Your task to perform on an android device: turn on sleep mode Image 0: 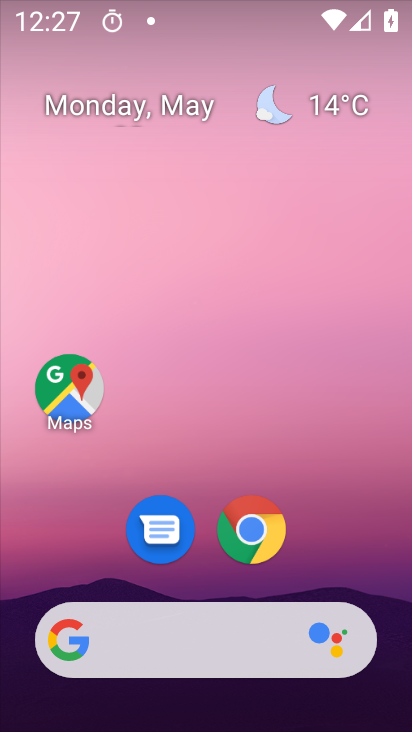
Step 0: drag from (385, 579) to (384, 176)
Your task to perform on an android device: turn on sleep mode Image 1: 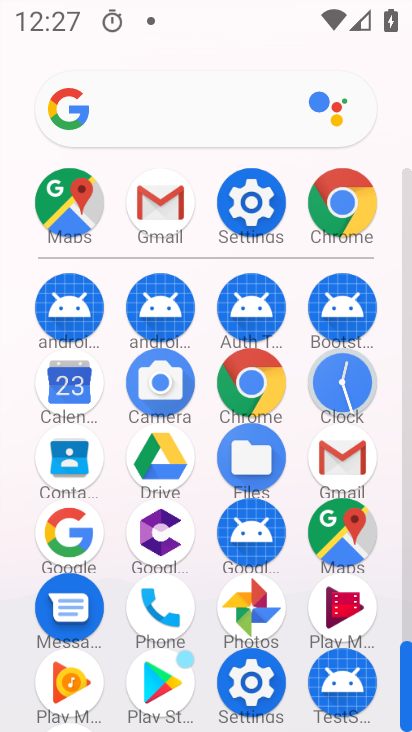
Step 1: click (278, 219)
Your task to perform on an android device: turn on sleep mode Image 2: 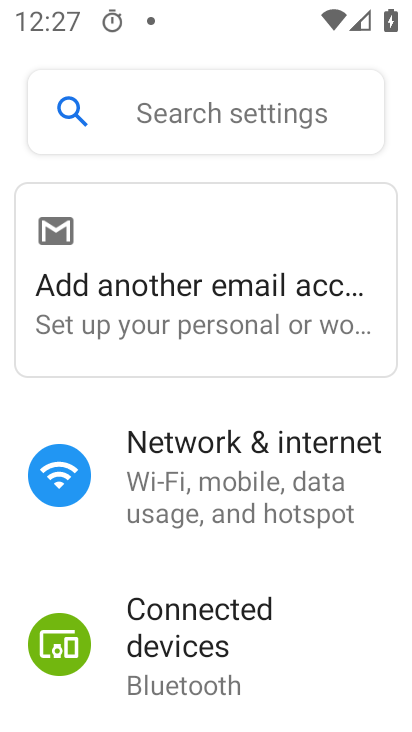
Step 2: drag from (329, 681) to (315, 596)
Your task to perform on an android device: turn on sleep mode Image 3: 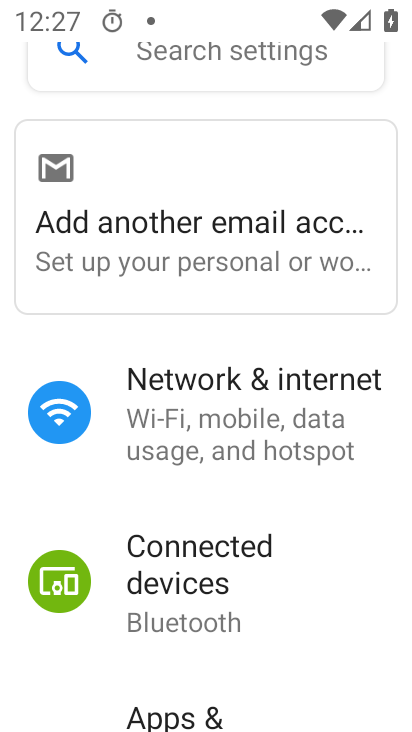
Step 3: drag from (359, 677) to (361, 584)
Your task to perform on an android device: turn on sleep mode Image 4: 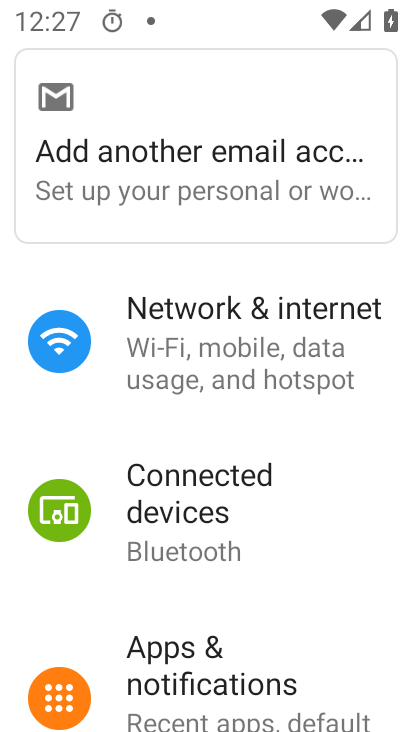
Step 4: drag from (355, 665) to (351, 568)
Your task to perform on an android device: turn on sleep mode Image 5: 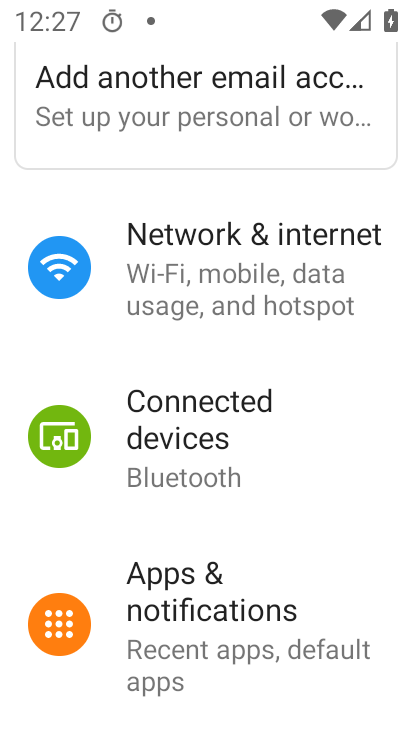
Step 5: drag from (363, 675) to (362, 568)
Your task to perform on an android device: turn on sleep mode Image 6: 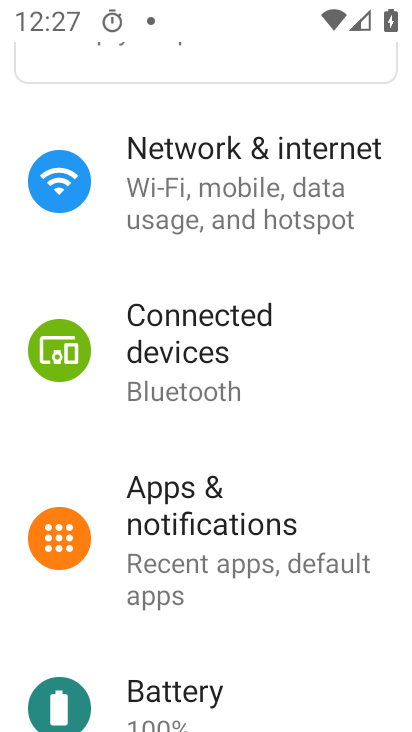
Step 6: drag from (362, 662) to (373, 572)
Your task to perform on an android device: turn on sleep mode Image 7: 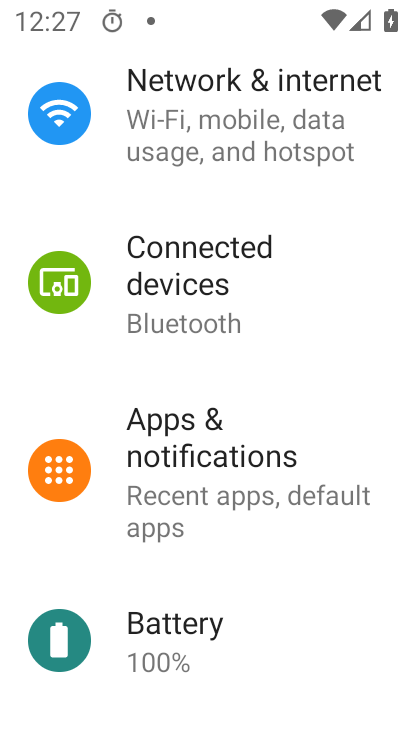
Step 7: drag from (363, 637) to (369, 563)
Your task to perform on an android device: turn on sleep mode Image 8: 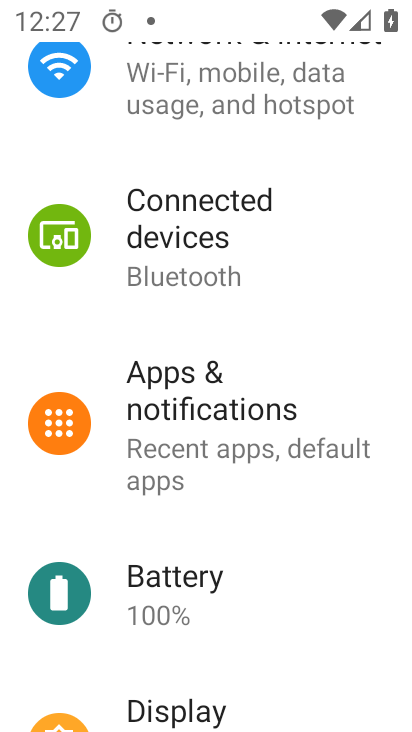
Step 8: drag from (362, 621) to (367, 514)
Your task to perform on an android device: turn on sleep mode Image 9: 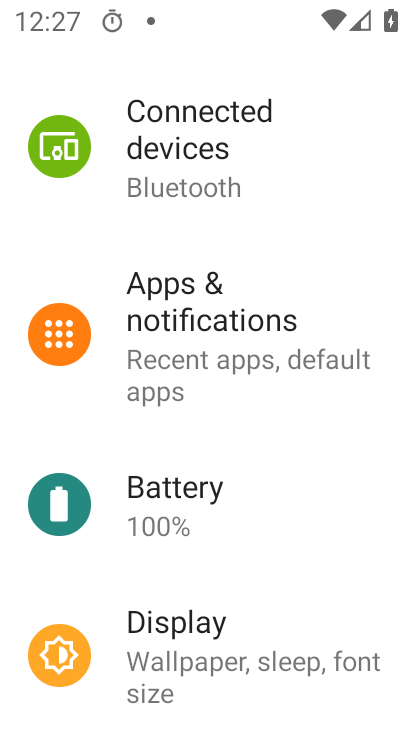
Step 9: drag from (365, 537) to (375, 407)
Your task to perform on an android device: turn on sleep mode Image 10: 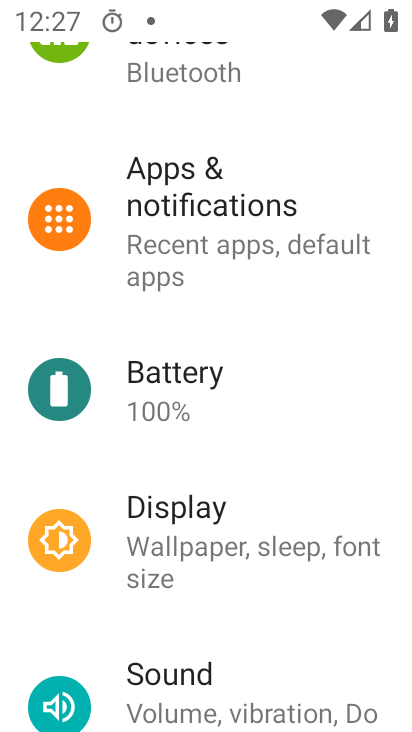
Step 10: drag from (356, 518) to (356, 410)
Your task to perform on an android device: turn on sleep mode Image 11: 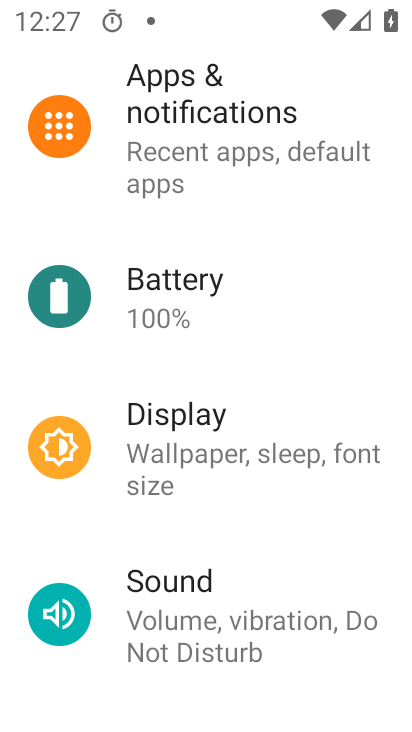
Step 11: click (336, 474)
Your task to perform on an android device: turn on sleep mode Image 12: 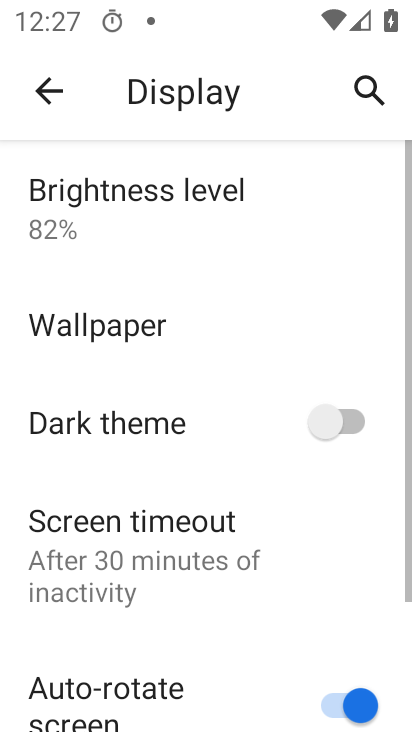
Step 12: drag from (287, 586) to (289, 494)
Your task to perform on an android device: turn on sleep mode Image 13: 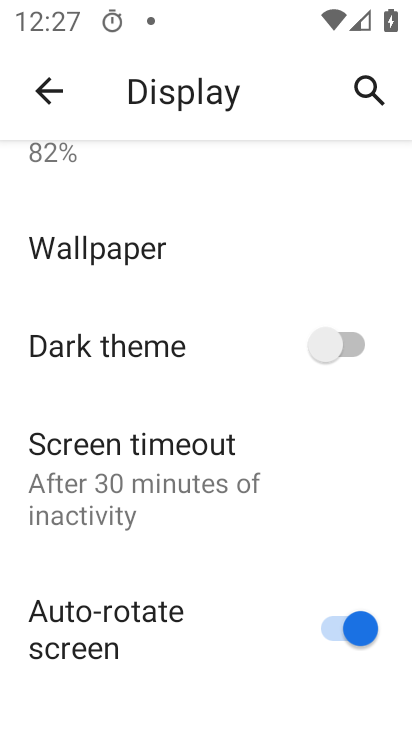
Step 13: drag from (299, 593) to (291, 499)
Your task to perform on an android device: turn on sleep mode Image 14: 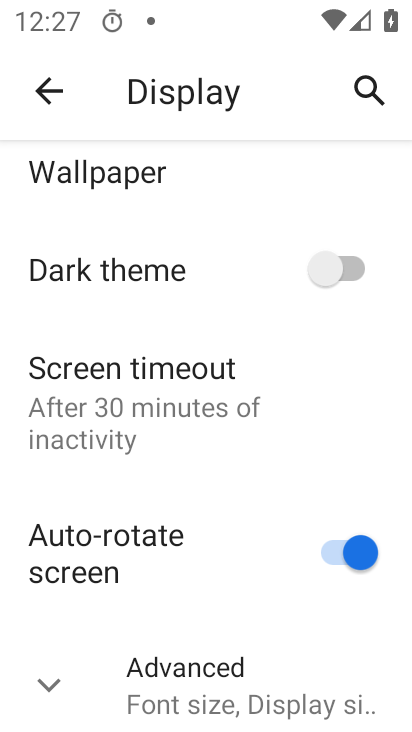
Step 14: click (215, 692)
Your task to perform on an android device: turn on sleep mode Image 15: 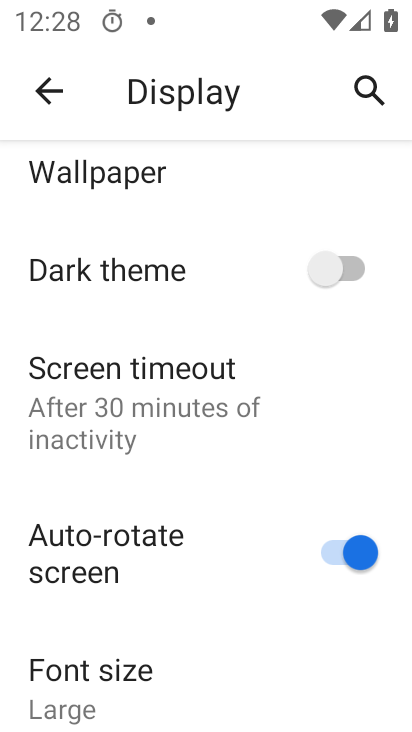
Step 15: task complete